Your task to perform on an android device: Open Youtube and go to "Your channel" Image 0: 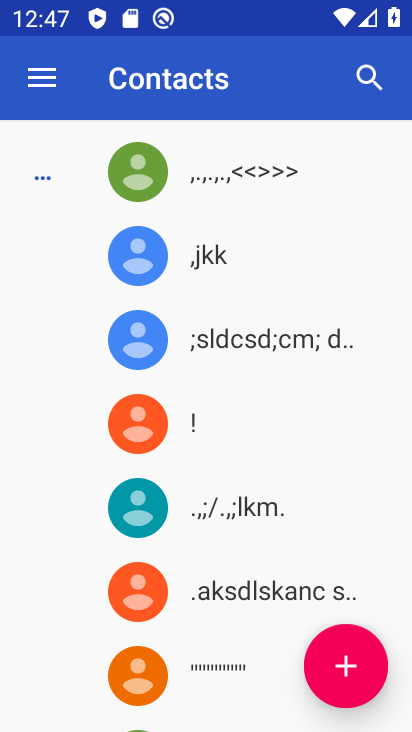
Step 0: press home button
Your task to perform on an android device: Open Youtube and go to "Your channel" Image 1: 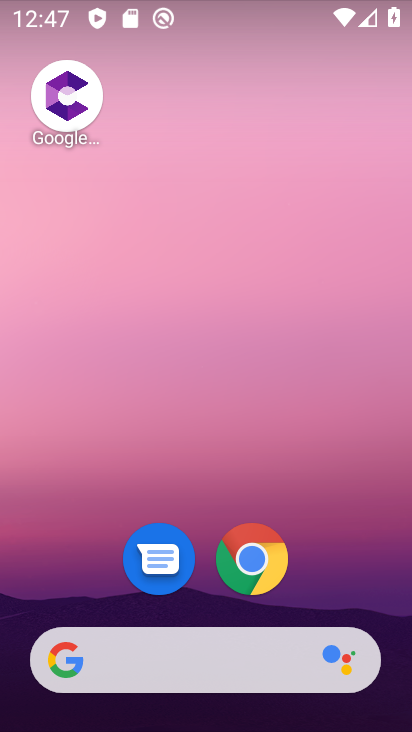
Step 1: drag from (375, 567) to (315, 162)
Your task to perform on an android device: Open Youtube and go to "Your channel" Image 2: 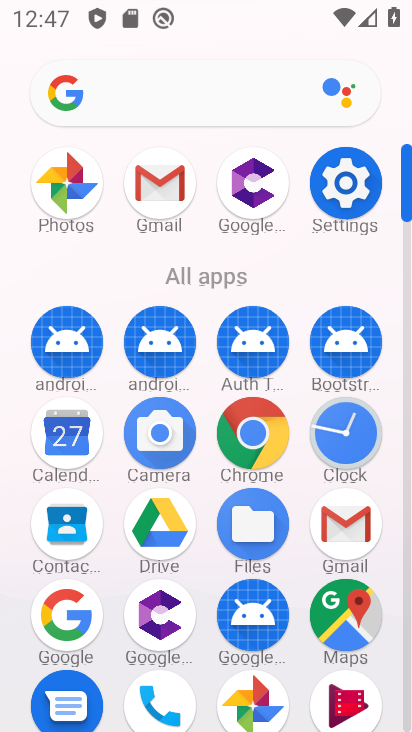
Step 2: drag from (196, 587) to (187, 235)
Your task to perform on an android device: Open Youtube and go to "Your channel" Image 3: 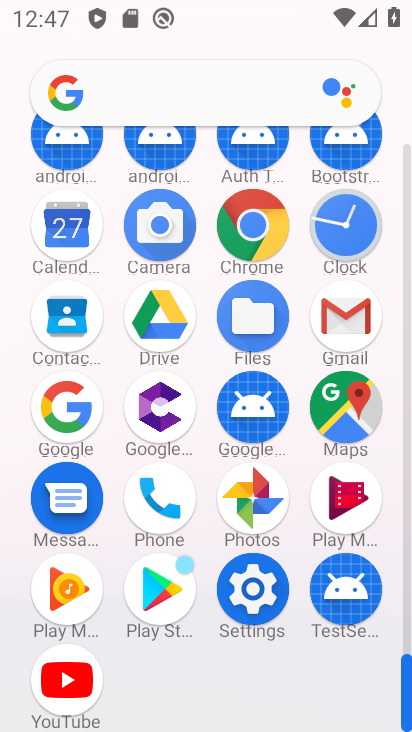
Step 3: click (83, 667)
Your task to perform on an android device: Open Youtube and go to "Your channel" Image 4: 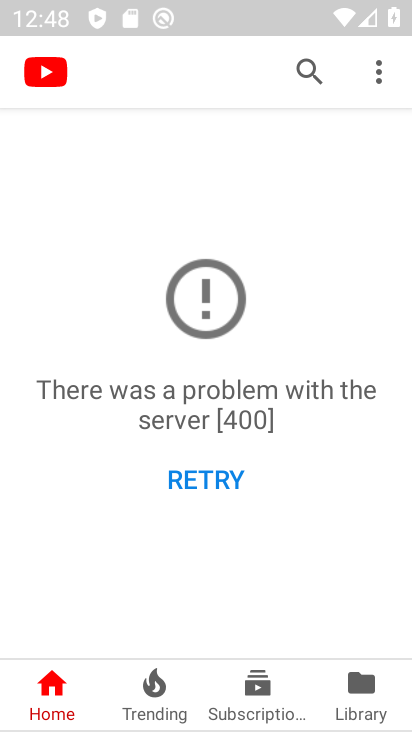
Step 4: task complete